Your task to perform on an android device: Add usb-c to usb-b to the cart on newegg Image 0: 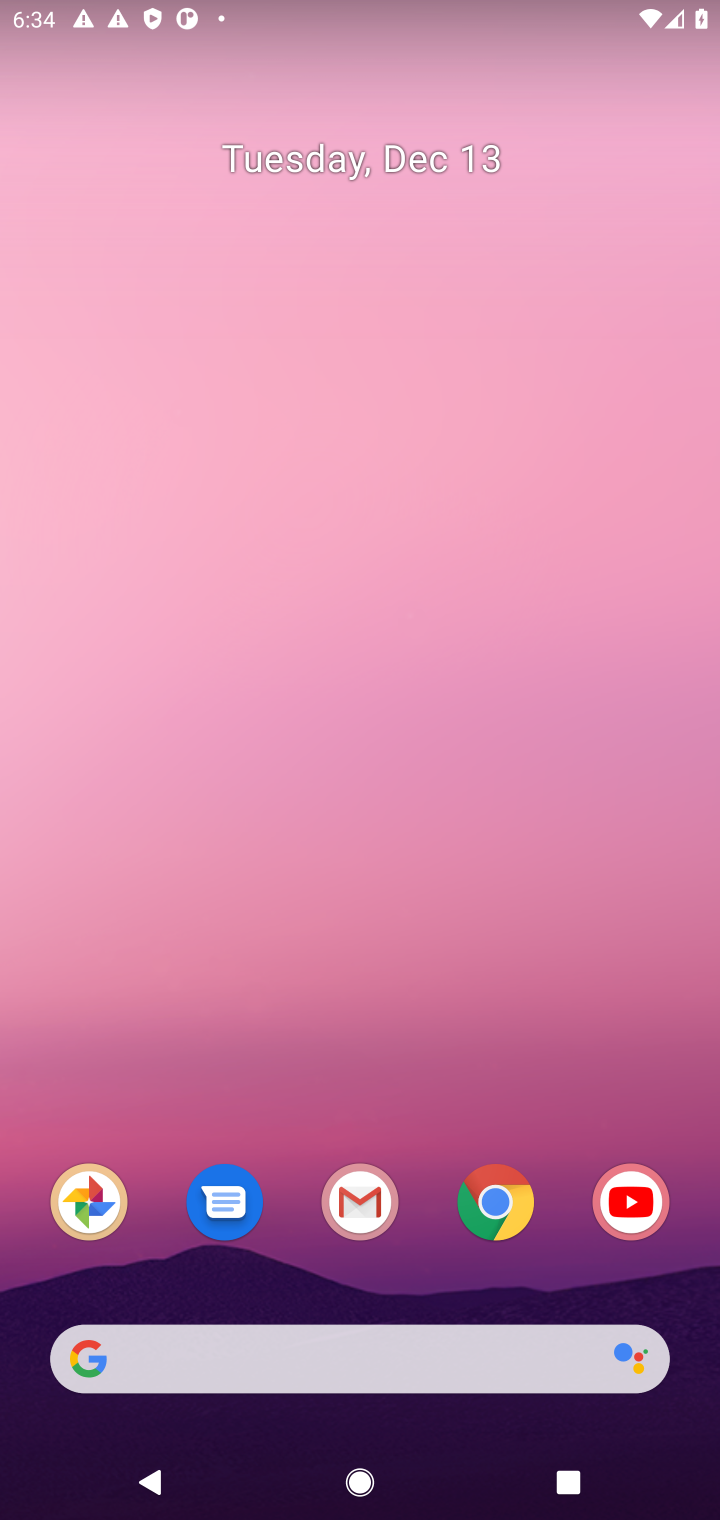
Step 0: click (493, 1209)
Your task to perform on an android device: Add usb-c to usb-b to the cart on newegg Image 1: 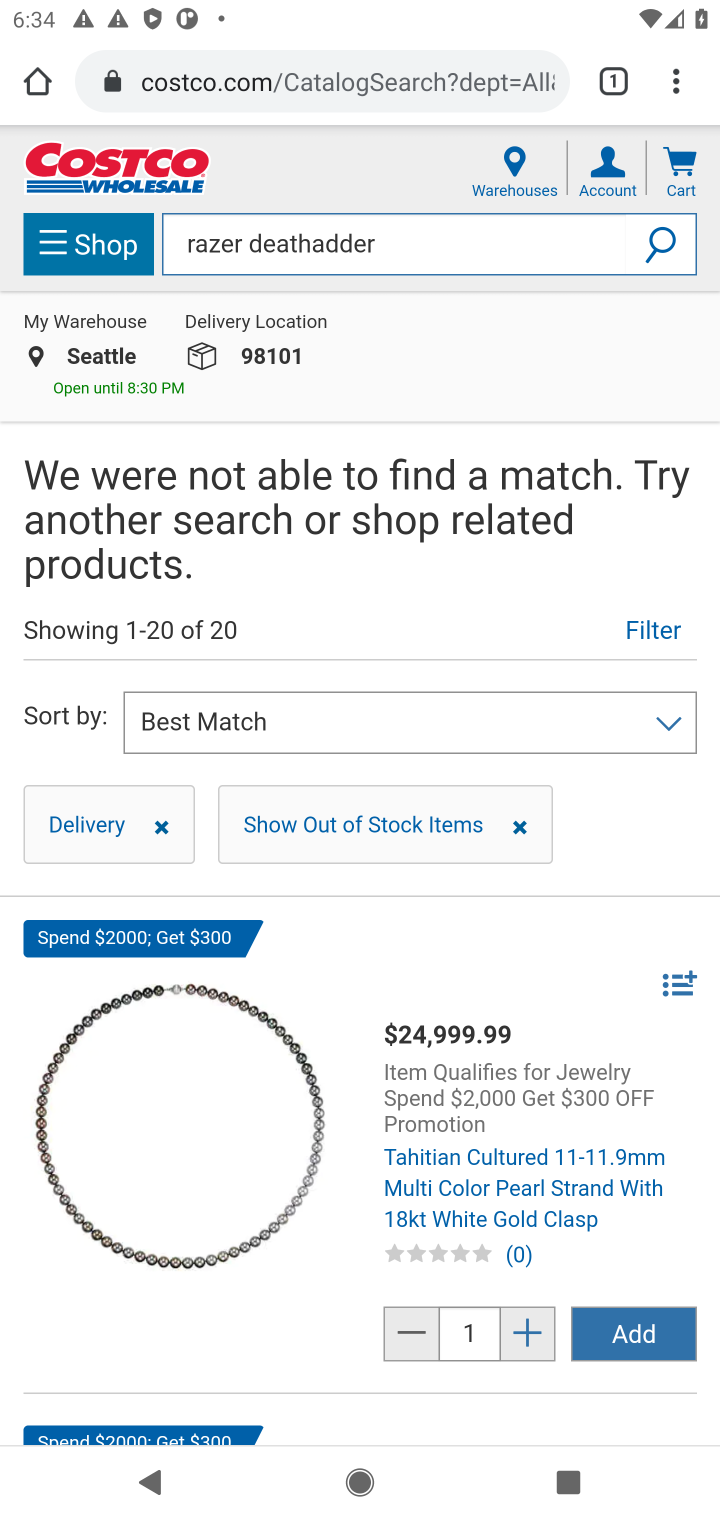
Step 1: click (275, 83)
Your task to perform on an android device: Add usb-c to usb-b to the cart on newegg Image 2: 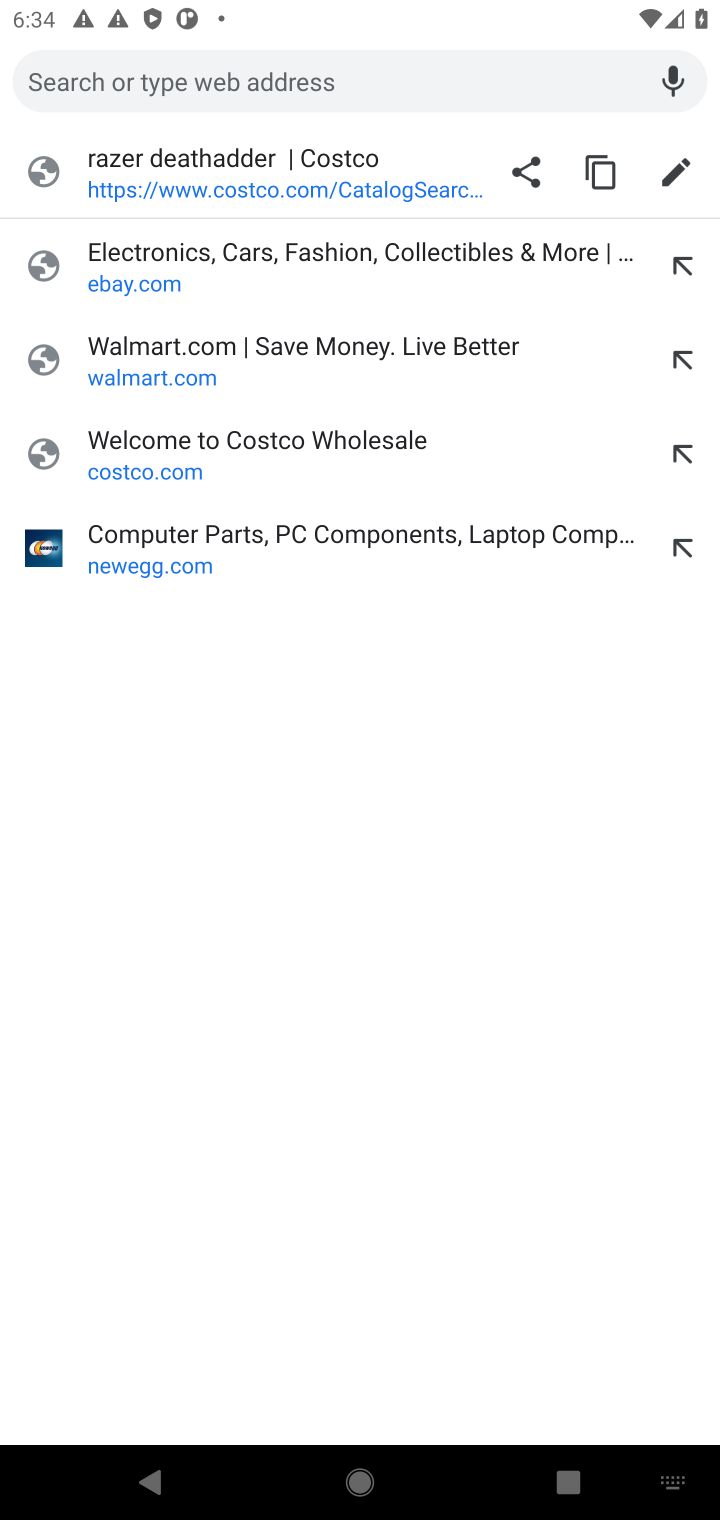
Step 2: click (160, 557)
Your task to perform on an android device: Add usb-c to usb-b to the cart on newegg Image 3: 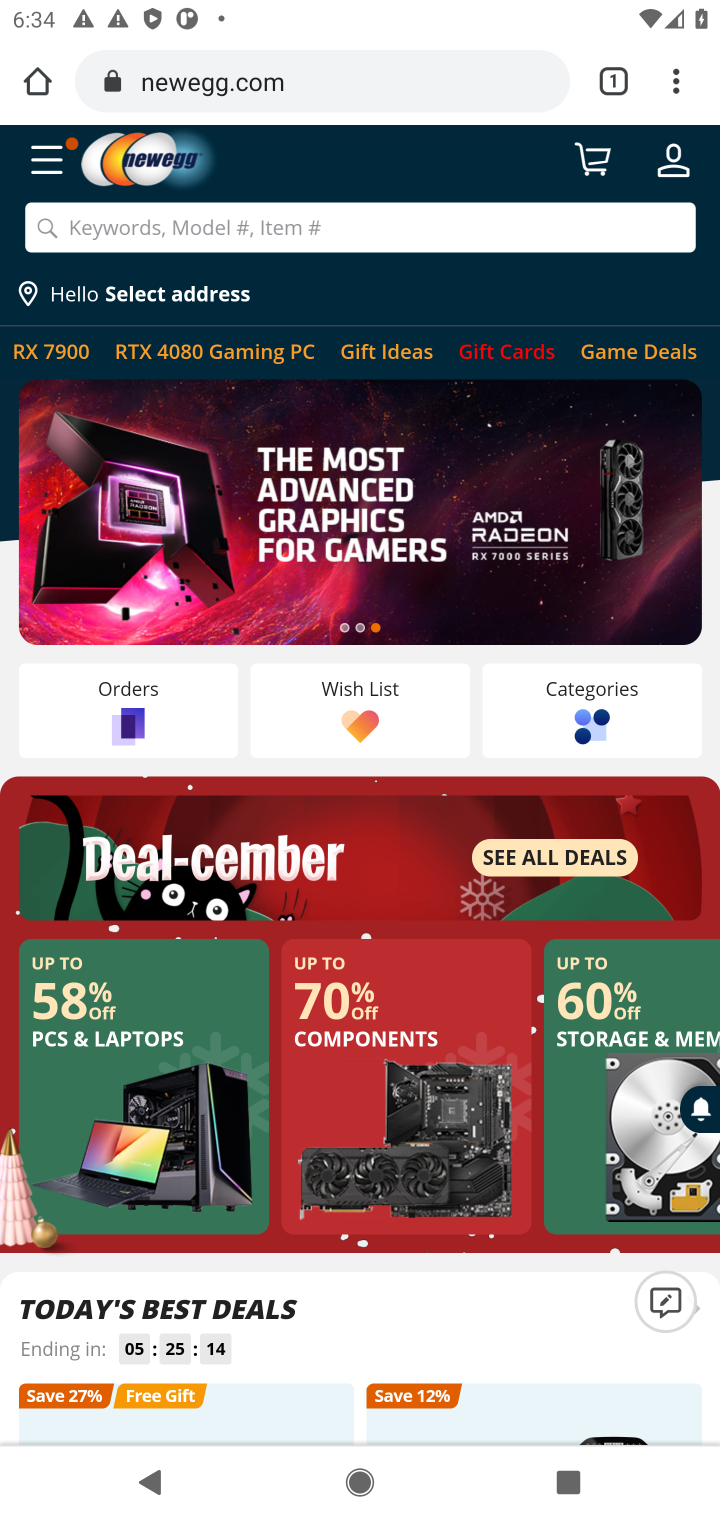
Step 3: click (249, 229)
Your task to perform on an android device: Add usb-c to usb-b to the cart on newegg Image 4: 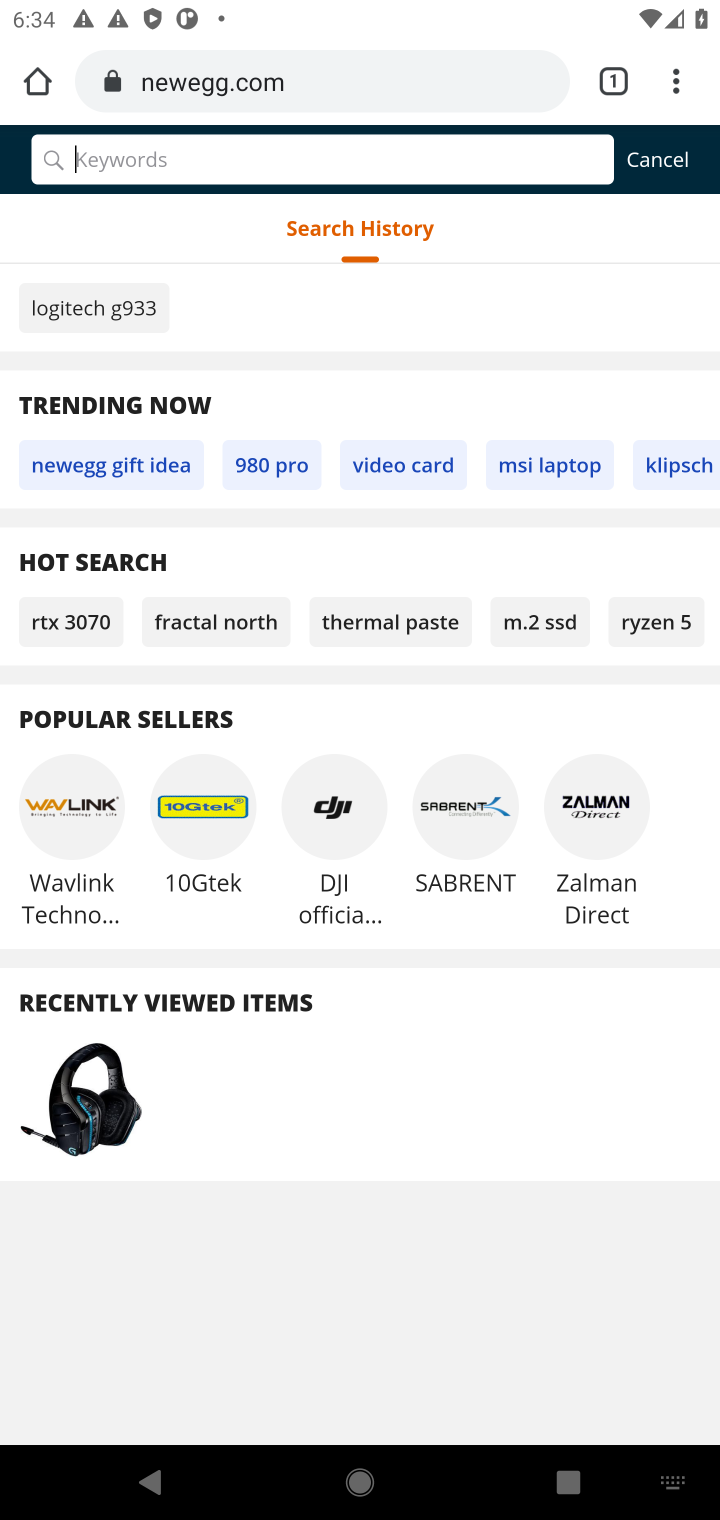
Step 4: type "usb-c to usb-b"
Your task to perform on an android device: Add usb-c to usb-b to the cart on newegg Image 5: 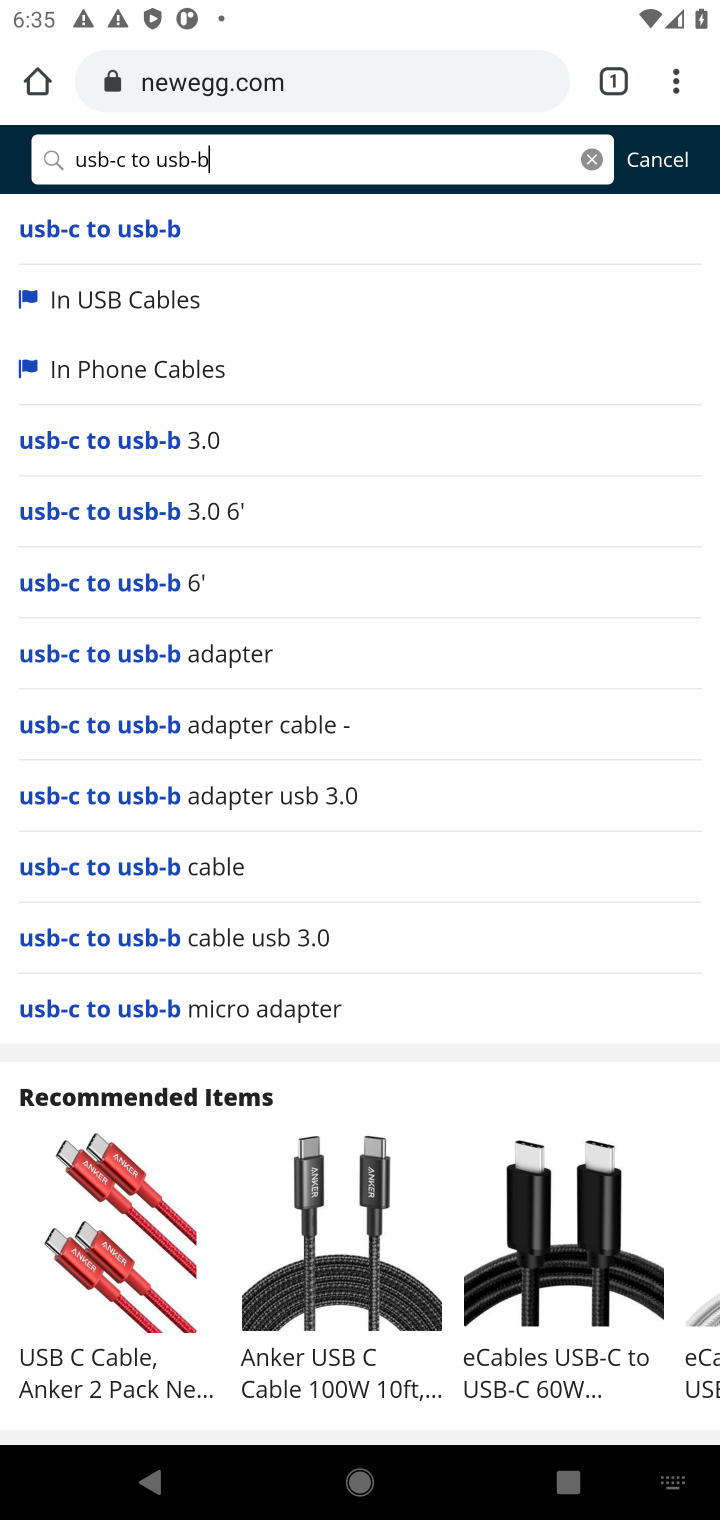
Step 5: click (116, 232)
Your task to perform on an android device: Add usb-c to usb-b to the cart on newegg Image 6: 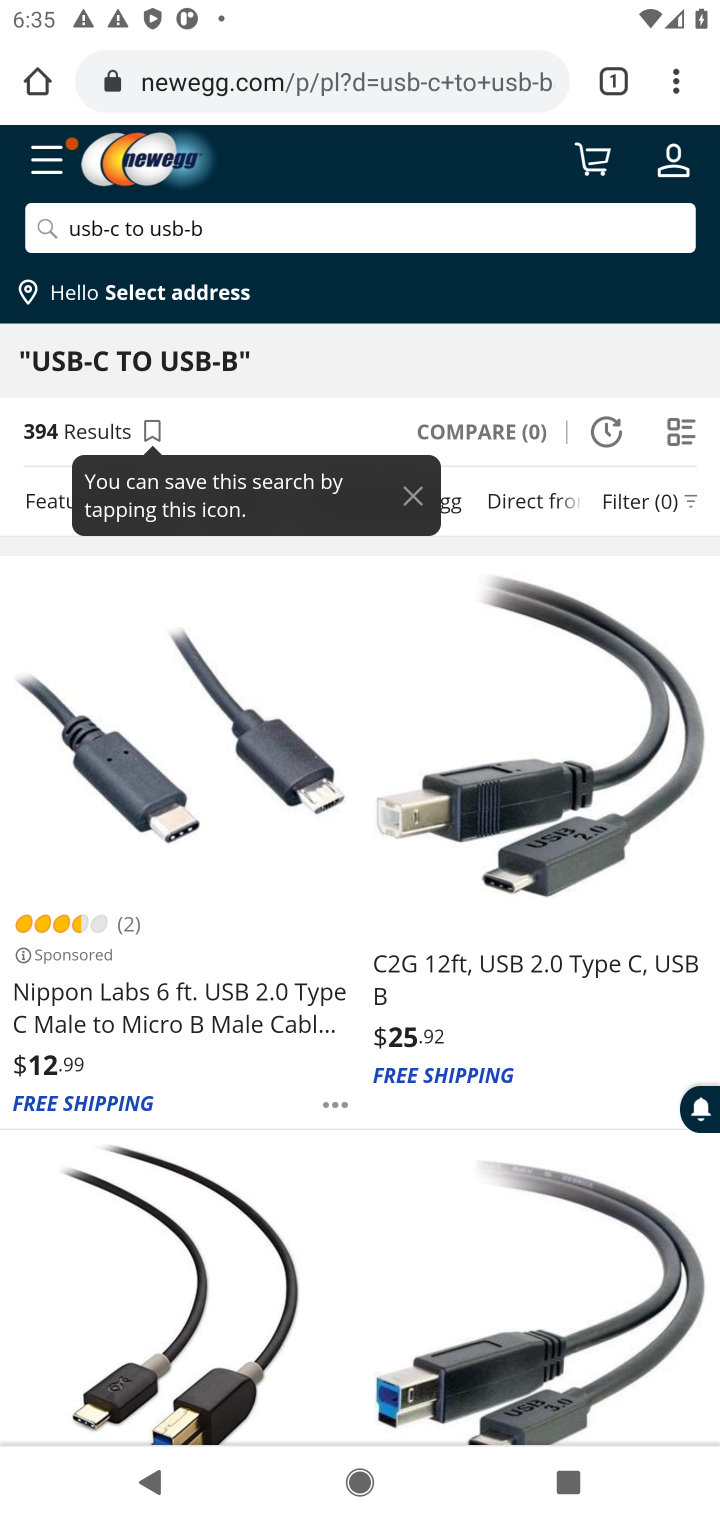
Step 6: drag from (188, 1185) to (210, 682)
Your task to perform on an android device: Add usb-c to usb-b to the cart on newegg Image 7: 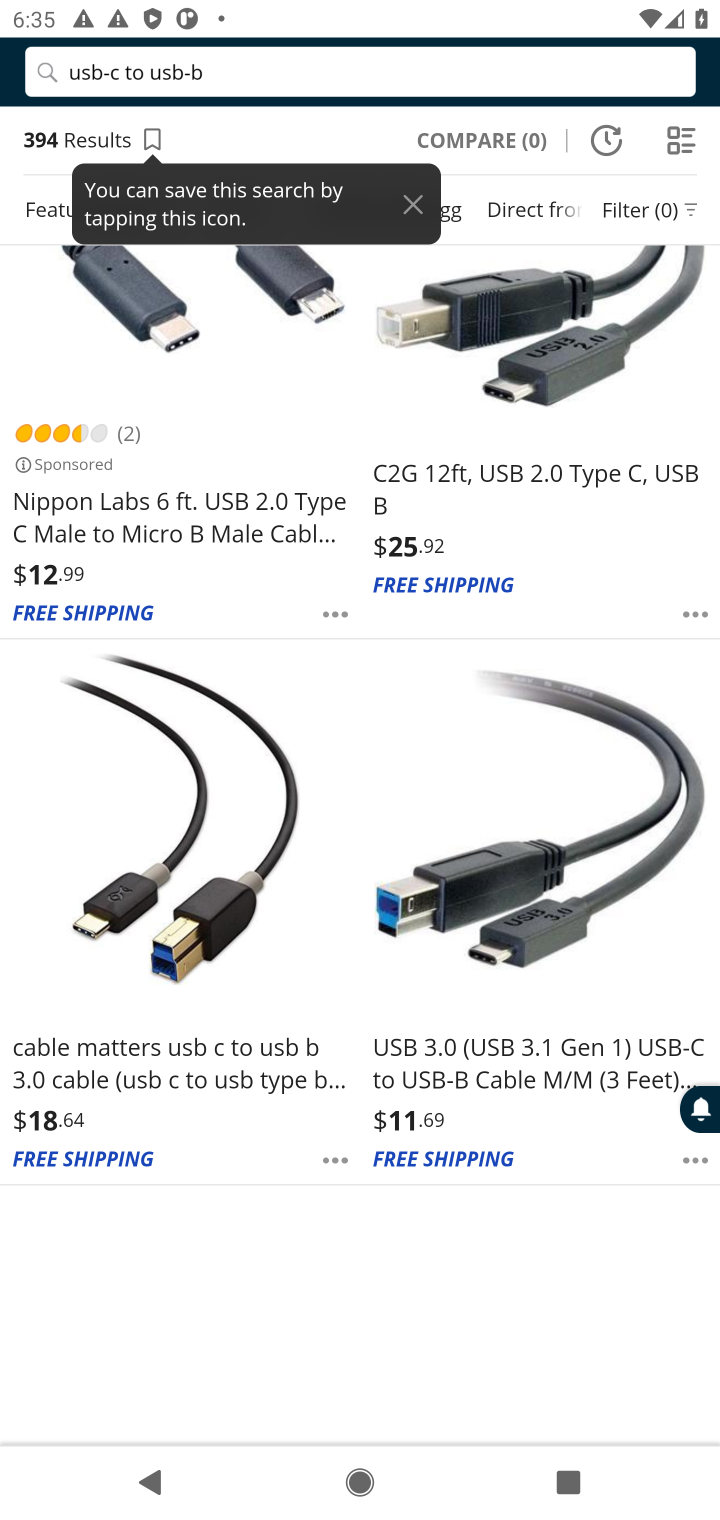
Step 7: click (155, 913)
Your task to perform on an android device: Add usb-c to usb-b to the cart on newegg Image 8: 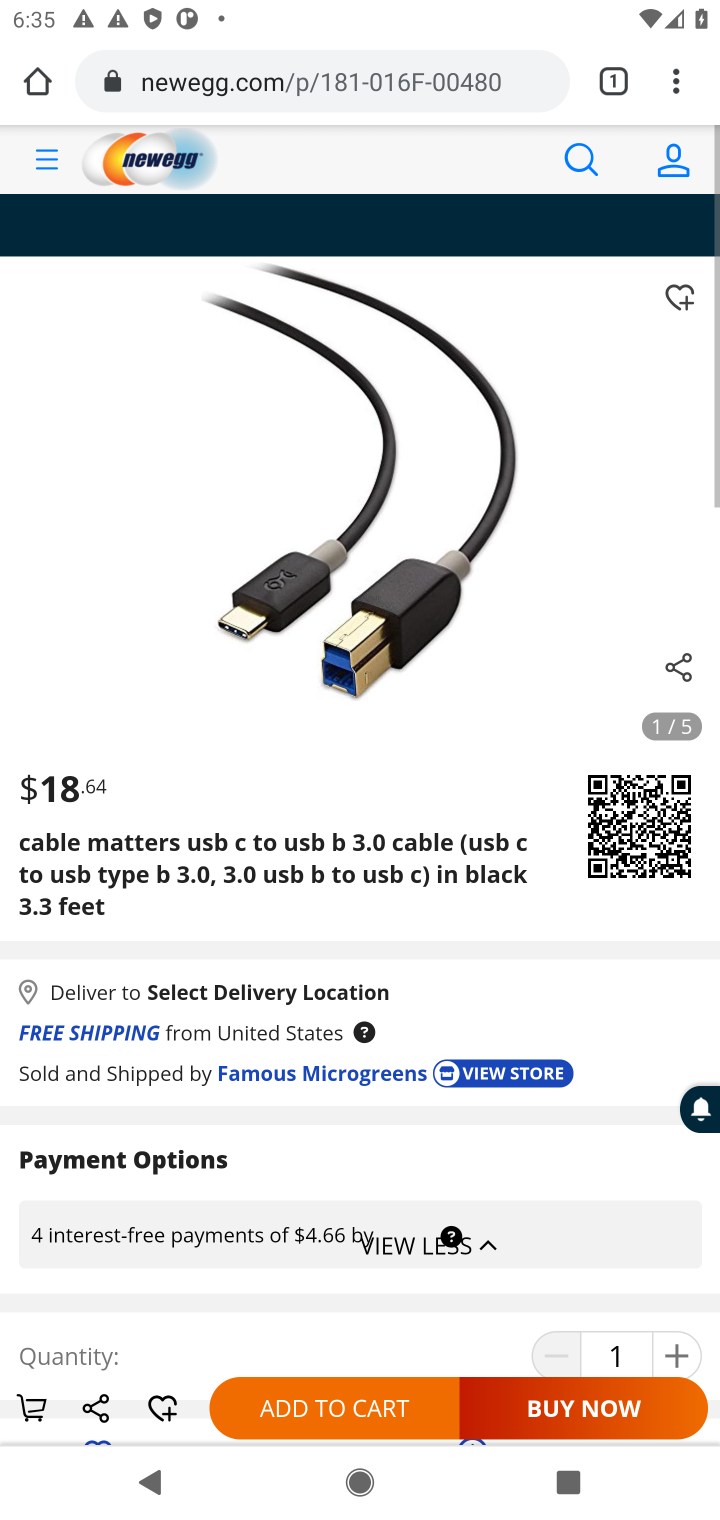
Step 8: click (295, 1404)
Your task to perform on an android device: Add usb-c to usb-b to the cart on newegg Image 9: 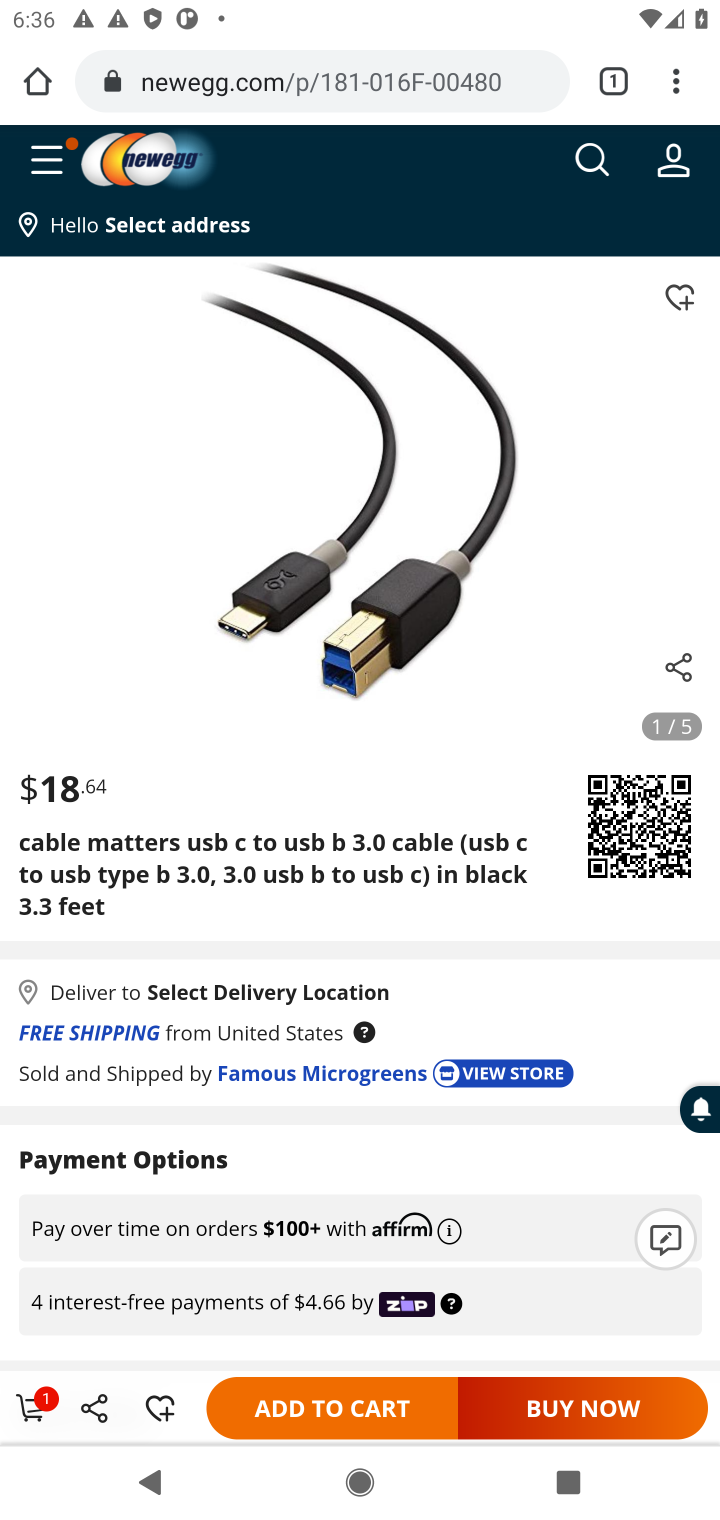
Step 9: task complete